Your task to perform on an android device: Go to Wikipedia Image 0: 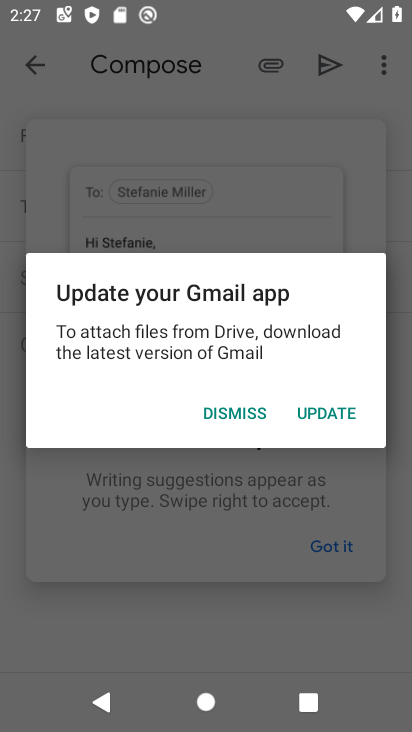
Step 0: press home button
Your task to perform on an android device: Go to Wikipedia Image 1: 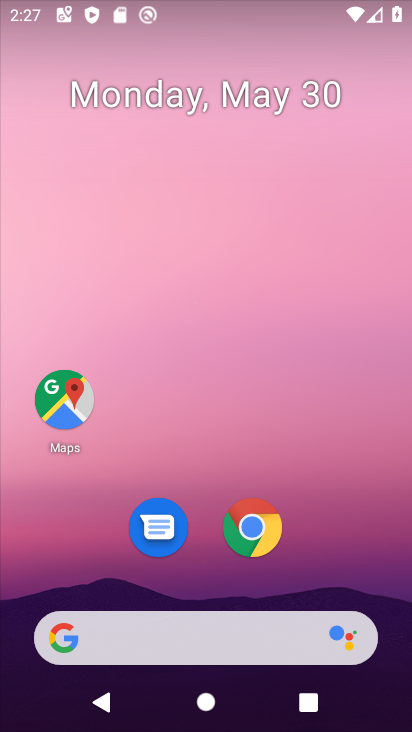
Step 1: drag from (314, 557) to (348, 84)
Your task to perform on an android device: Go to Wikipedia Image 2: 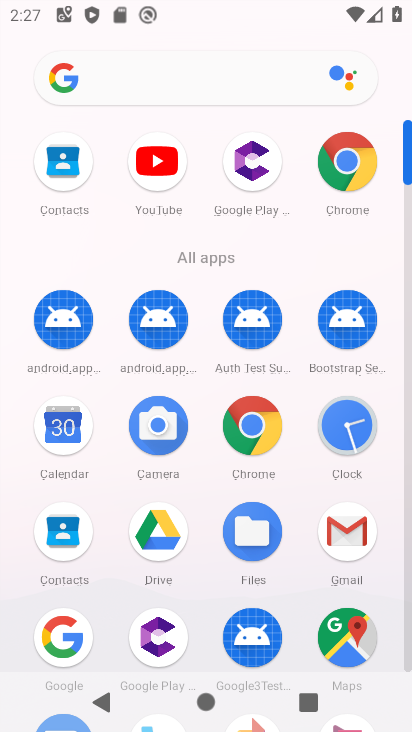
Step 2: click (248, 418)
Your task to perform on an android device: Go to Wikipedia Image 3: 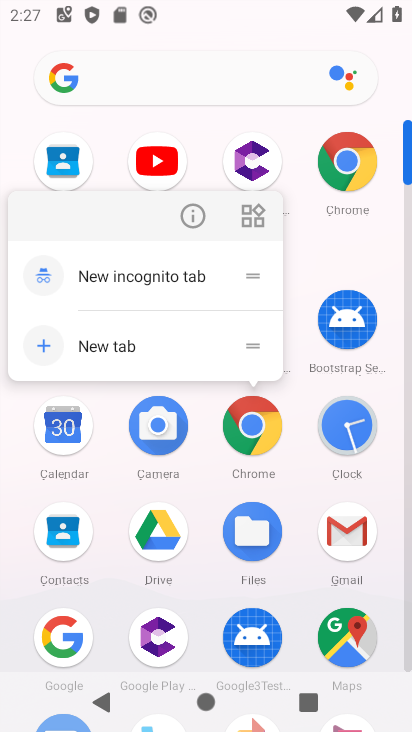
Step 3: click (254, 426)
Your task to perform on an android device: Go to Wikipedia Image 4: 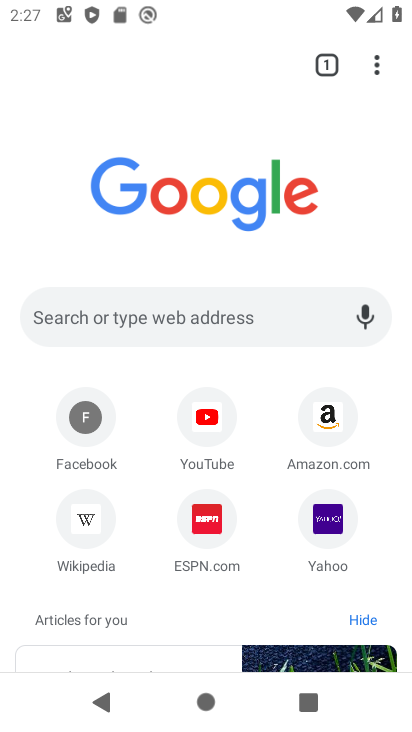
Step 4: click (189, 312)
Your task to perform on an android device: Go to Wikipedia Image 5: 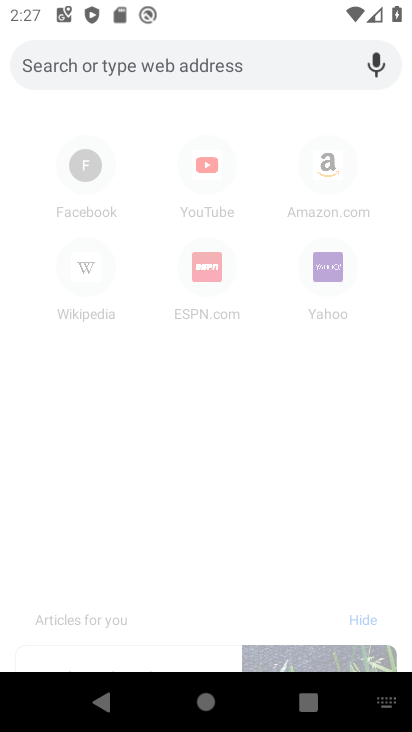
Step 5: type " Wikipedia"
Your task to perform on an android device: Go to Wikipedia Image 6: 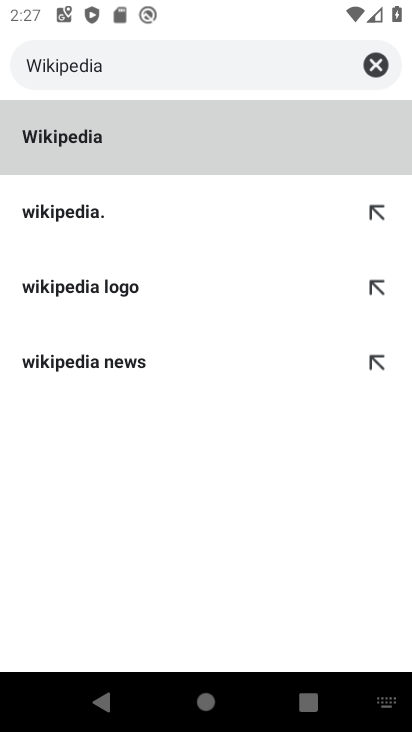
Step 6: click (63, 143)
Your task to perform on an android device: Go to Wikipedia Image 7: 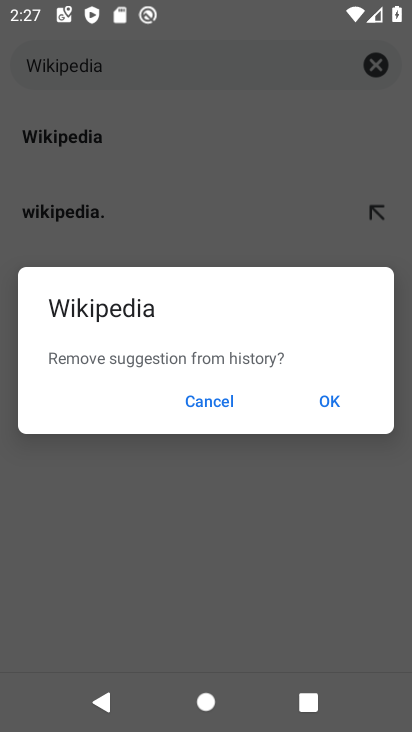
Step 7: click (331, 402)
Your task to perform on an android device: Go to Wikipedia Image 8: 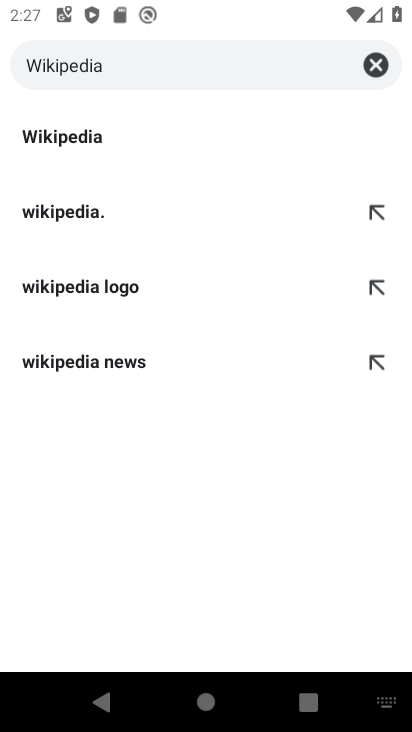
Step 8: click (73, 136)
Your task to perform on an android device: Go to Wikipedia Image 9: 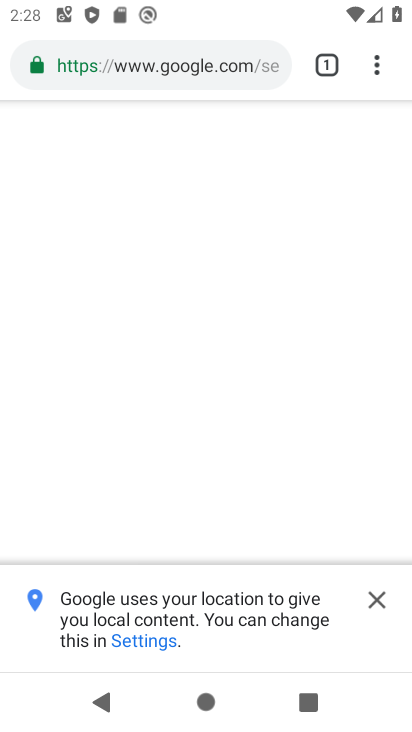
Step 9: click (373, 600)
Your task to perform on an android device: Go to Wikipedia Image 10: 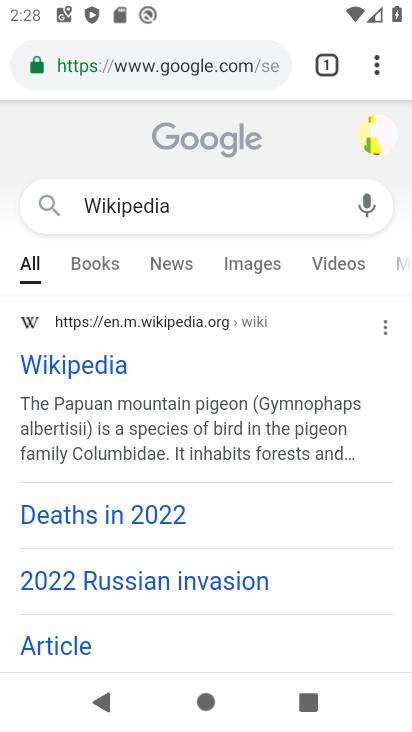
Step 10: click (30, 357)
Your task to perform on an android device: Go to Wikipedia Image 11: 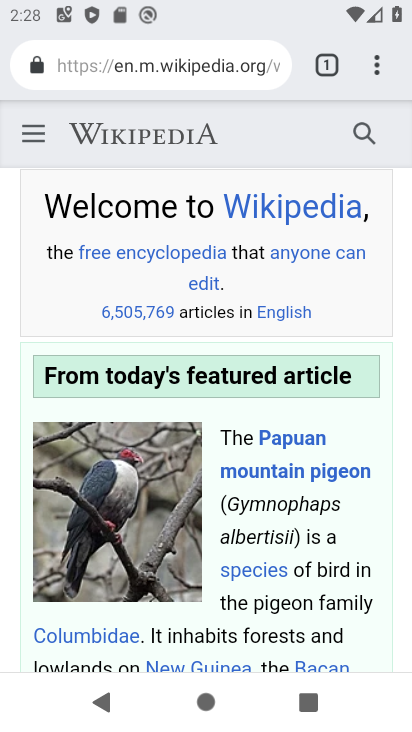
Step 11: task complete